Your task to perform on an android device: Open Google Chrome Image 0: 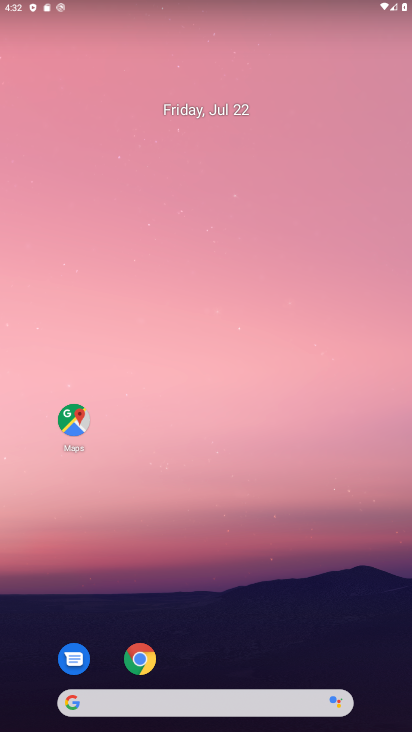
Step 0: drag from (218, 622) to (221, 125)
Your task to perform on an android device: Open Google Chrome Image 1: 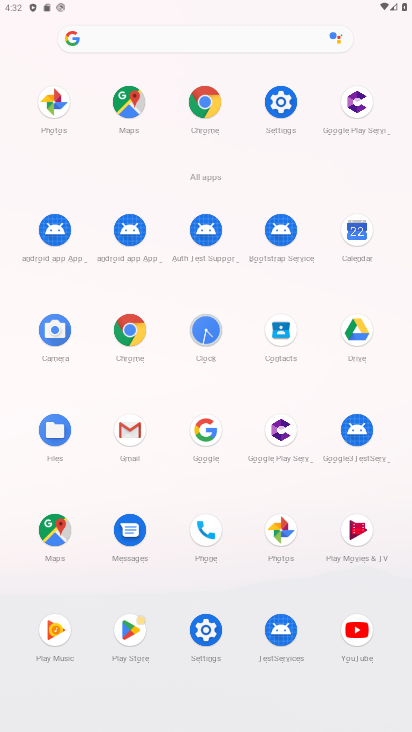
Step 1: click (136, 338)
Your task to perform on an android device: Open Google Chrome Image 2: 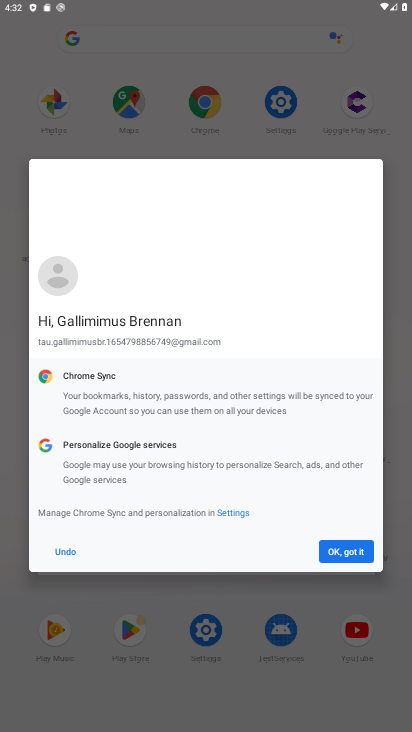
Step 2: click (328, 559)
Your task to perform on an android device: Open Google Chrome Image 3: 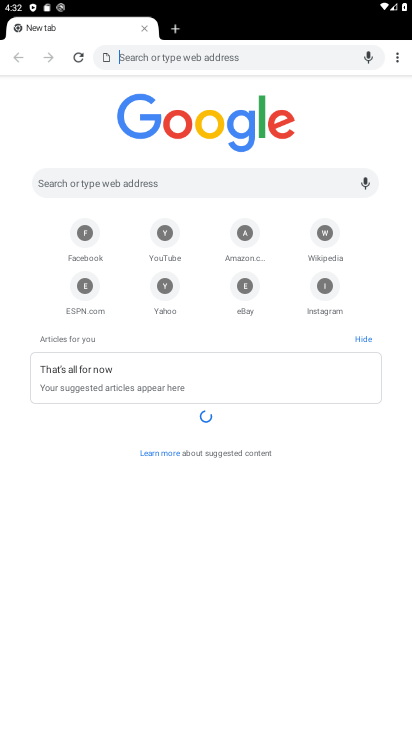
Step 3: task complete